Your task to perform on an android device: Go to CNN.com Image 0: 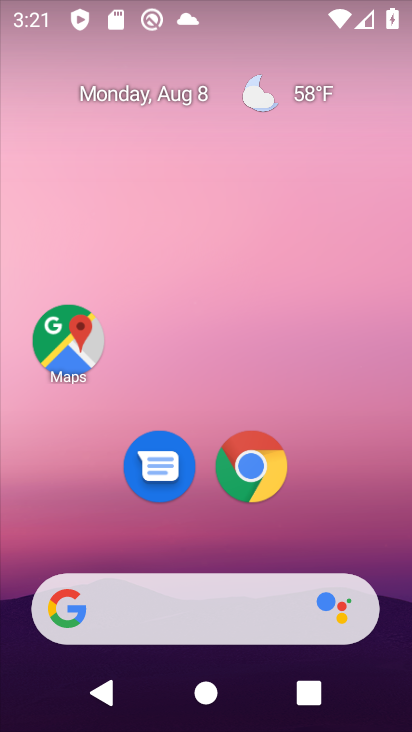
Step 0: drag from (286, 579) to (293, 131)
Your task to perform on an android device: Go to CNN.com Image 1: 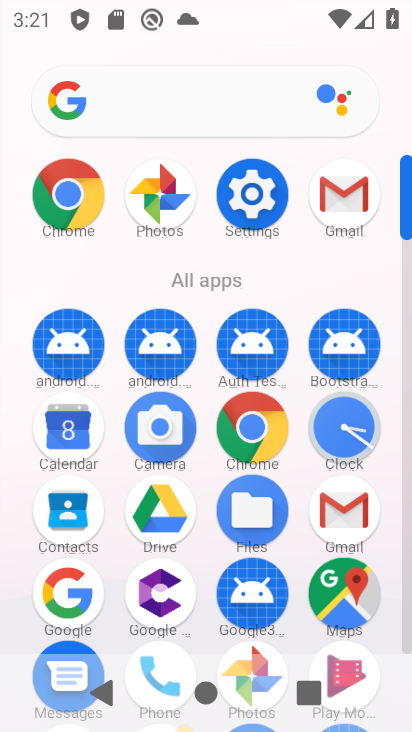
Step 1: click (67, 191)
Your task to perform on an android device: Go to CNN.com Image 2: 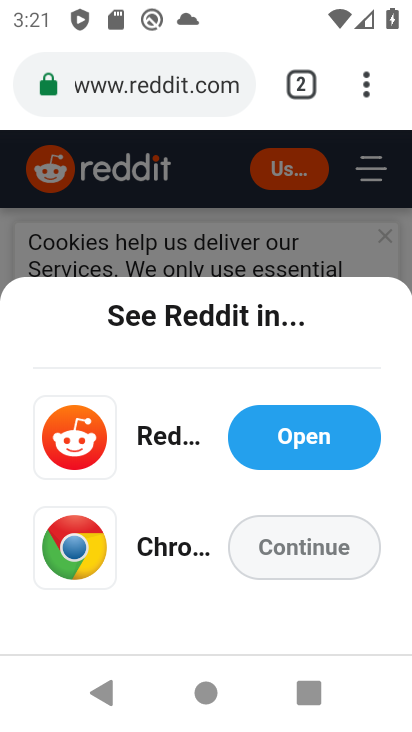
Step 2: click (376, 74)
Your task to perform on an android device: Go to CNN.com Image 3: 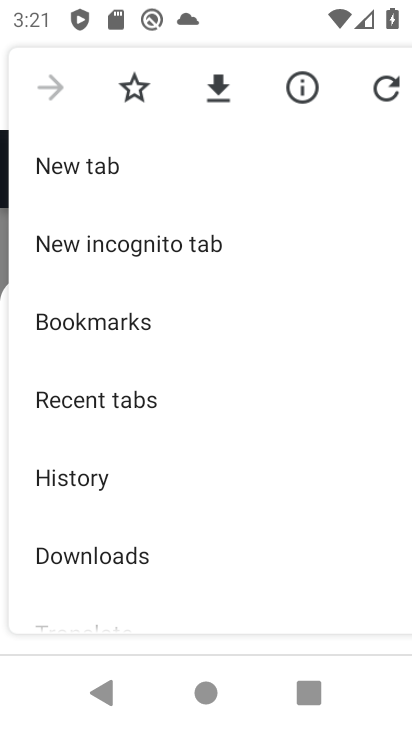
Step 3: click (113, 166)
Your task to perform on an android device: Go to CNN.com Image 4: 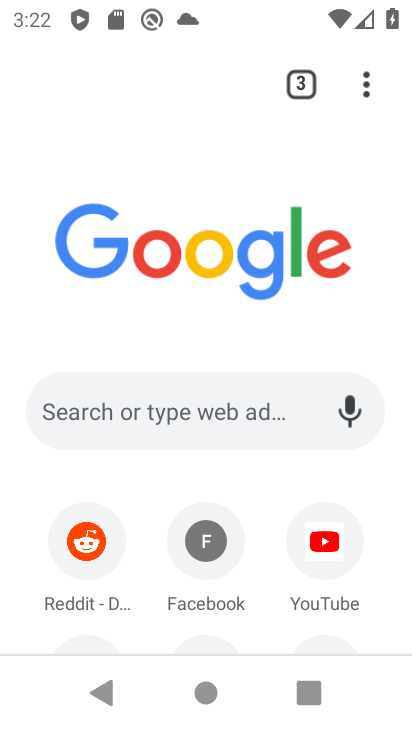
Step 4: click (201, 409)
Your task to perform on an android device: Go to CNN.com Image 5: 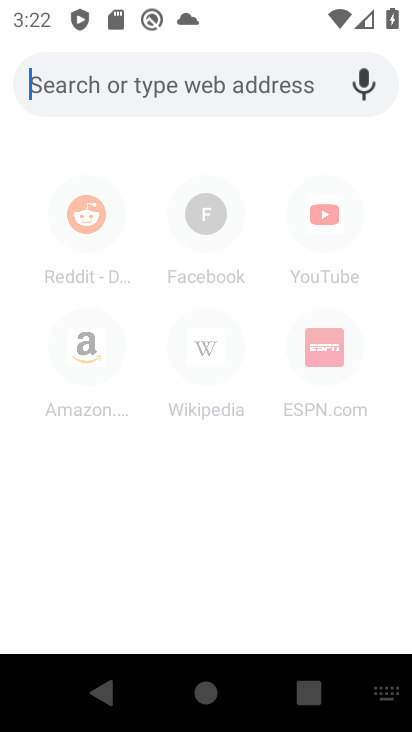
Step 5: type "CNN.com "
Your task to perform on an android device: Go to CNN.com Image 6: 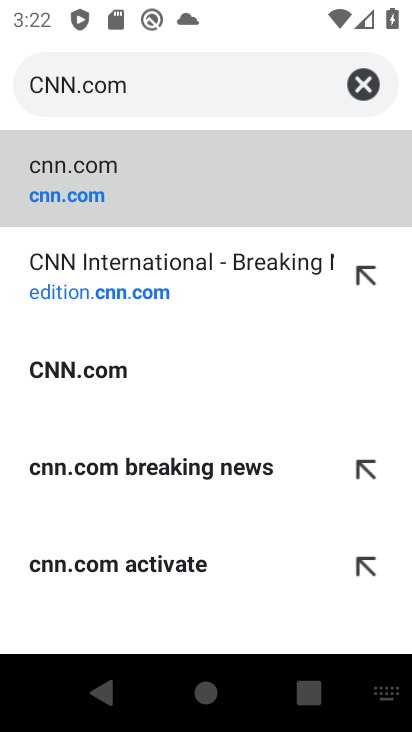
Step 6: click (225, 175)
Your task to perform on an android device: Go to CNN.com Image 7: 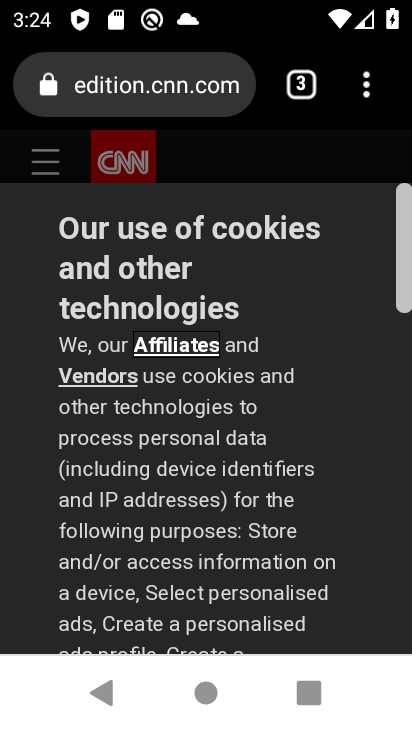
Step 7: task complete